Your task to perform on an android device: add a label to a message in the gmail app Image 0: 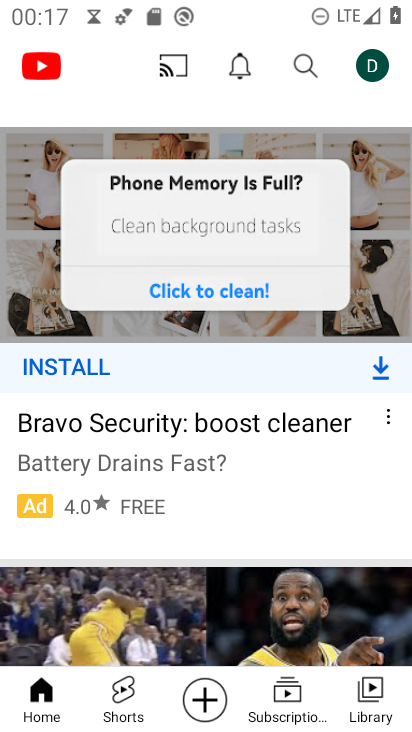
Step 0: press home button
Your task to perform on an android device: add a label to a message in the gmail app Image 1: 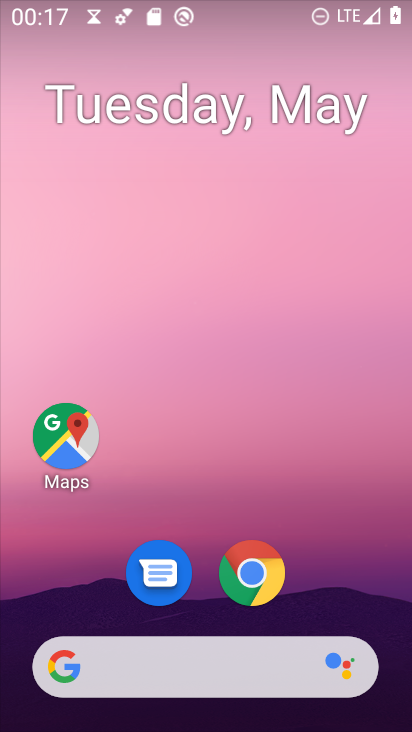
Step 1: drag from (337, 562) to (187, 57)
Your task to perform on an android device: add a label to a message in the gmail app Image 2: 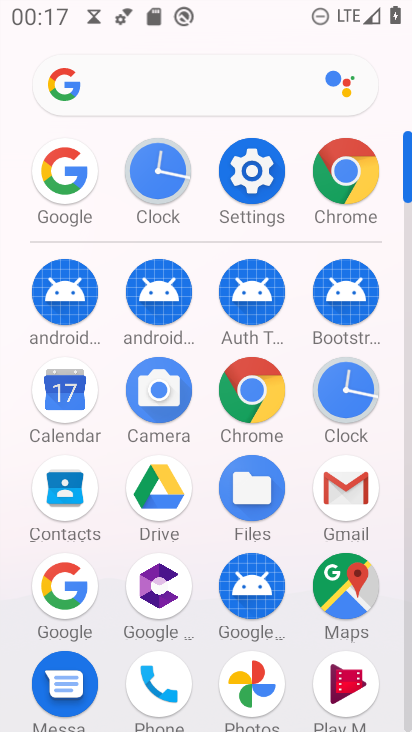
Step 2: click (342, 480)
Your task to perform on an android device: add a label to a message in the gmail app Image 3: 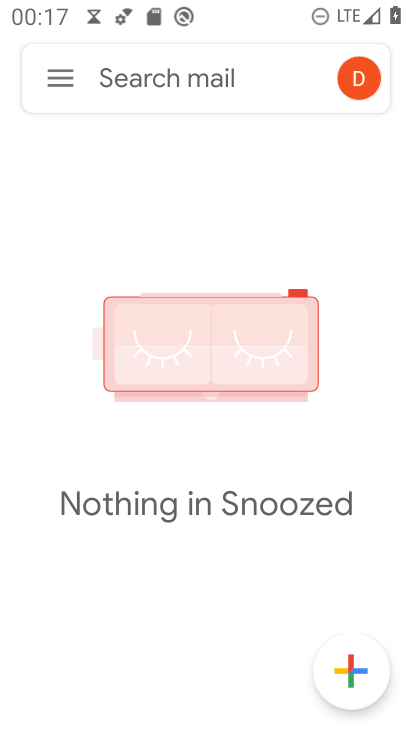
Step 3: click (51, 70)
Your task to perform on an android device: add a label to a message in the gmail app Image 4: 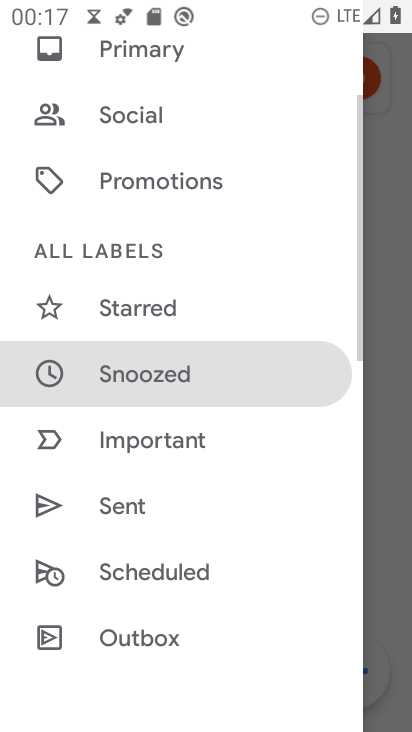
Step 4: drag from (185, 506) to (174, 58)
Your task to perform on an android device: add a label to a message in the gmail app Image 5: 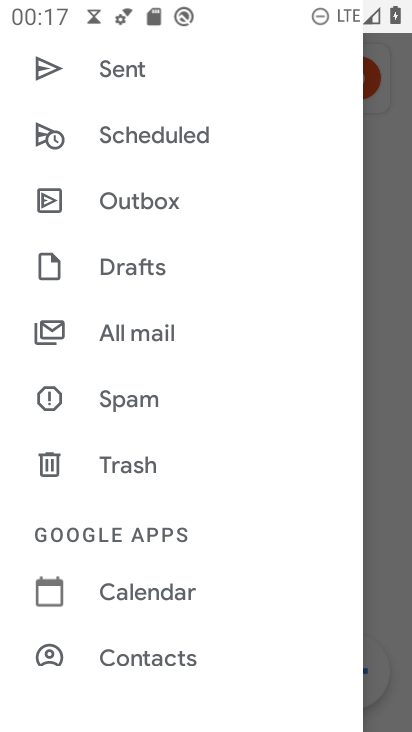
Step 5: click (176, 316)
Your task to perform on an android device: add a label to a message in the gmail app Image 6: 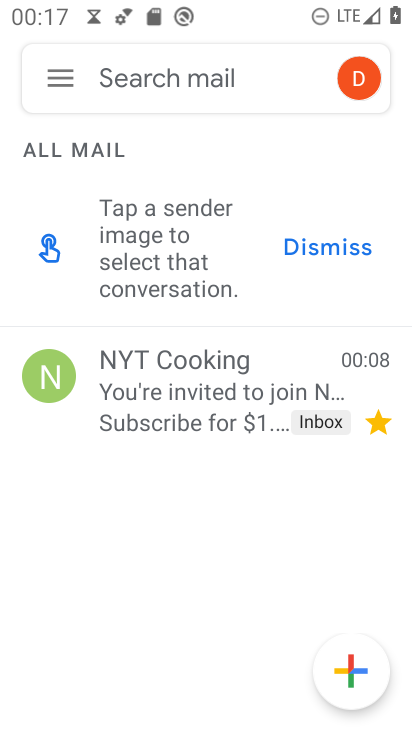
Step 6: click (197, 373)
Your task to perform on an android device: add a label to a message in the gmail app Image 7: 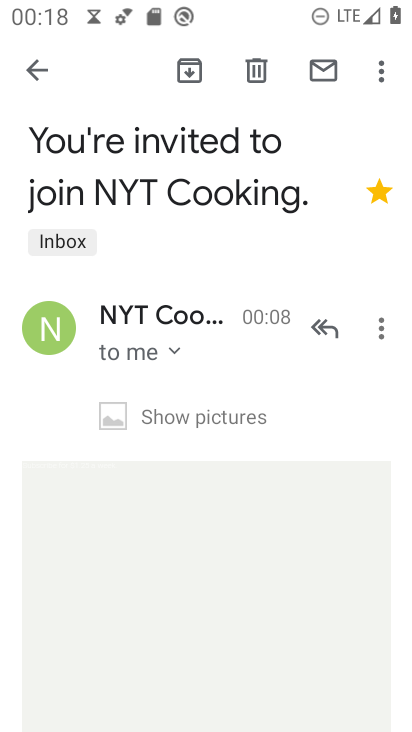
Step 7: task complete